Your task to perform on an android device: turn vacation reply on in the gmail app Image 0: 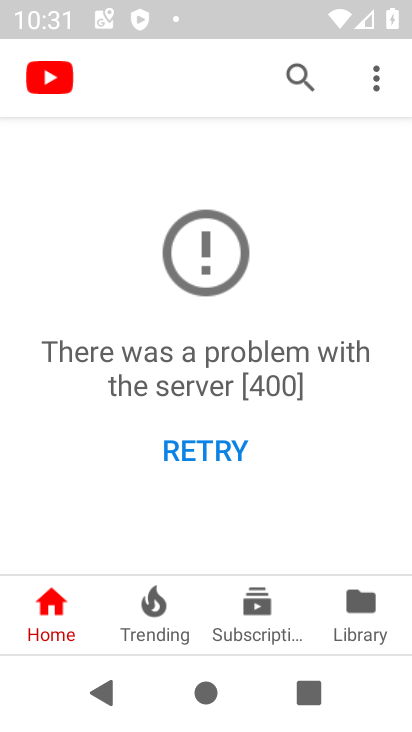
Step 0: press home button
Your task to perform on an android device: turn vacation reply on in the gmail app Image 1: 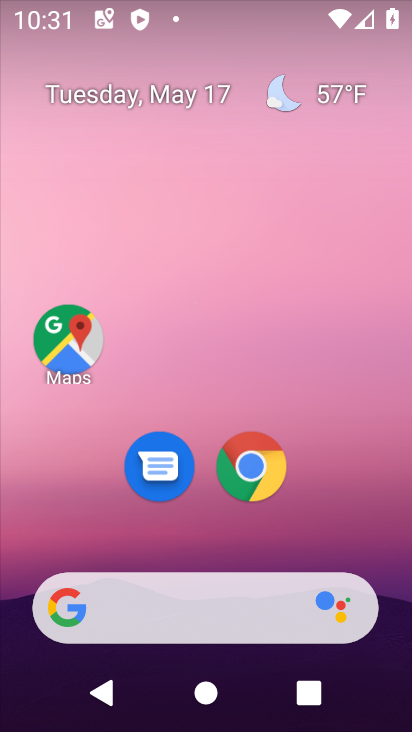
Step 1: drag from (82, 562) to (175, 138)
Your task to perform on an android device: turn vacation reply on in the gmail app Image 2: 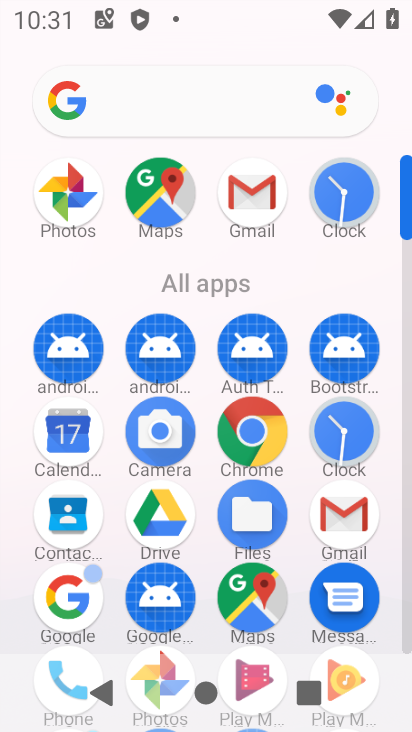
Step 2: click (351, 532)
Your task to perform on an android device: turn vacation reply on in the gmail app Image 3: 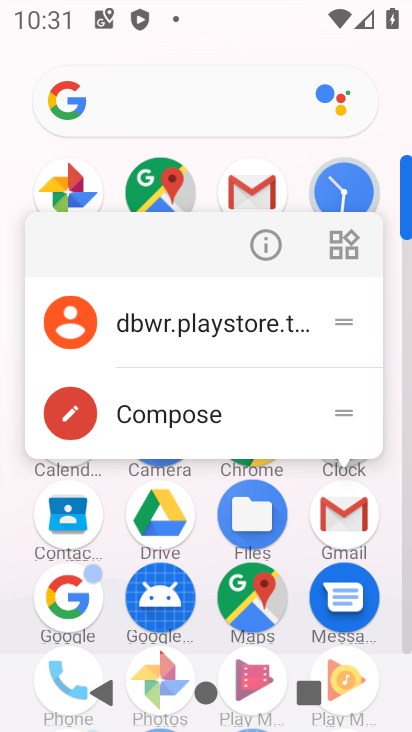
Step 3: click (339, 521)
Your task to perform on an android device: turn vacation reply on in the gmail app Image 4: 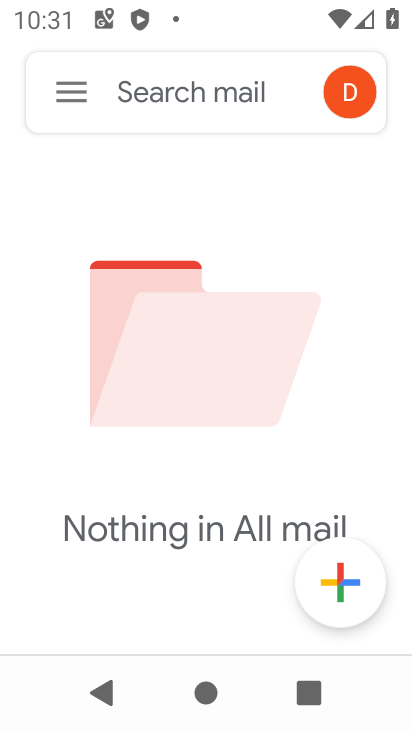
Step 4: click (71, 100)
Your task to perform on an android device: turn vacation reply on in the gmail app Image 5: 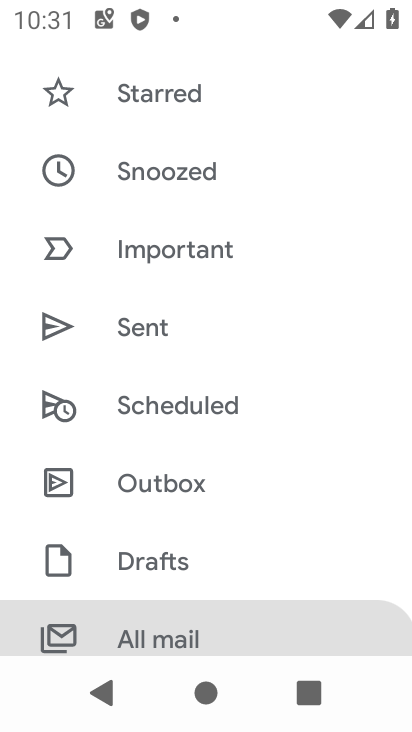
Step 5: drag from (157, 585) to (259, 142)
Your task to perform on an android device: turn vacation reply on in the gmail app Image 6: 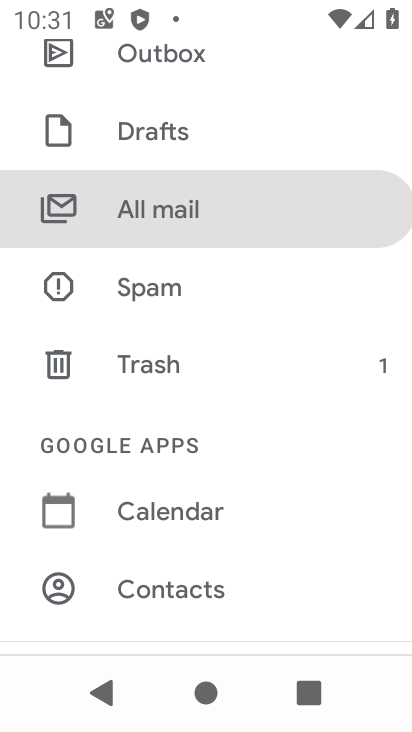
Step 6: drag from (216, 552) to (299, 176)
Your task to perform on an android device: turn vacation reply on in the gmail app Image 7: 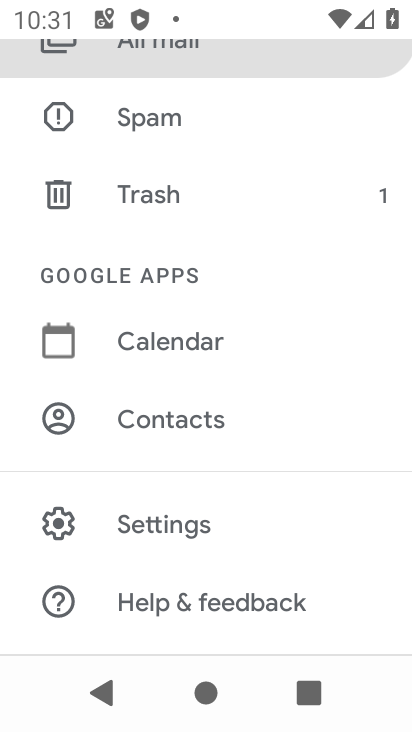
Step 7: click (175, 541)
Your task to perform on an android device: turn vacation reply on in the gmail app Image 8: 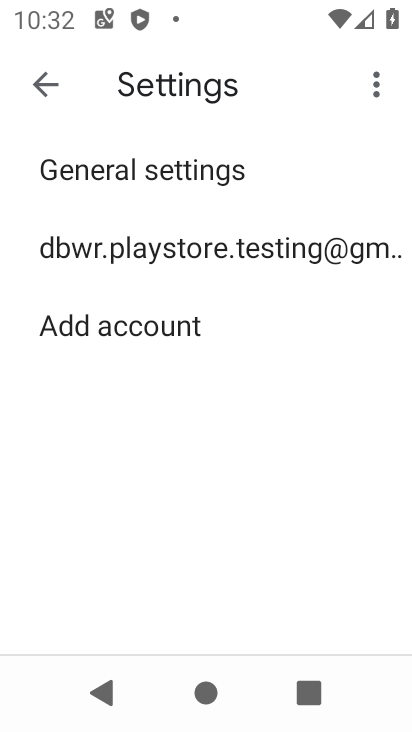
Step 8: click (310, 252)
Your task to perform on an android device: turn vacation reply on in the gmail app Image 9: 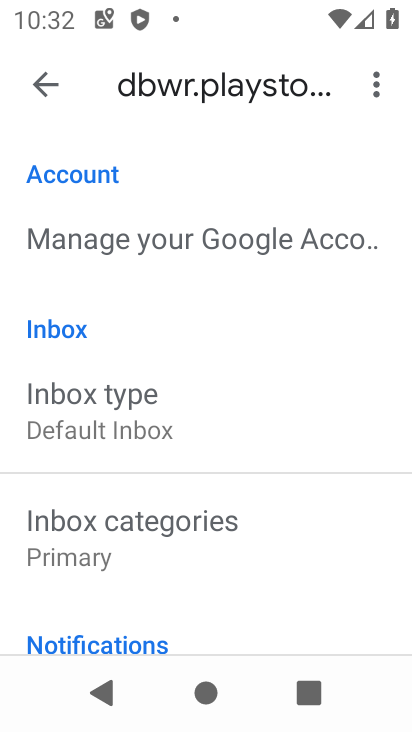
Step 9: drag from (190, 563) to (305, 55)
Your task to perform on an android device: turn vacation reply on in the gmail app Image 10: 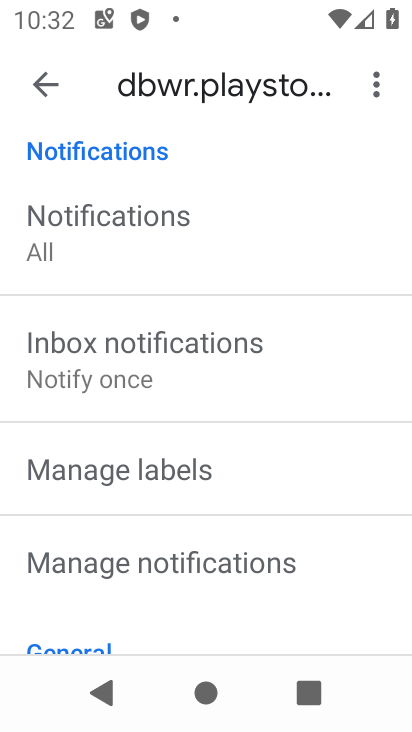
Step 10: drag from (237, 536) to (357, 4)
Your task to perform on an android device: turn vacation reply on in the gmail app Image 11: 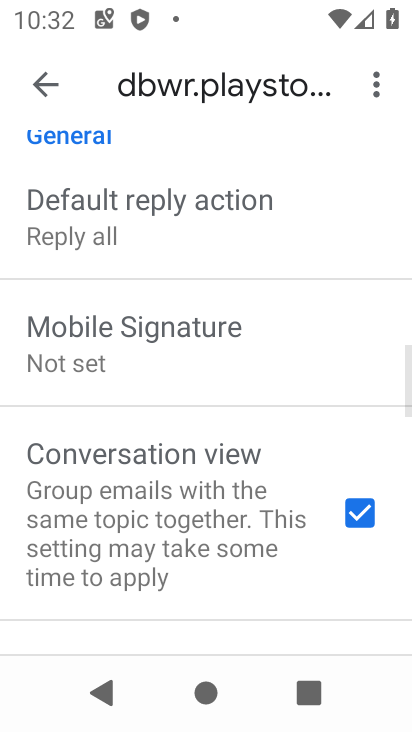
Step 11: drag from (271, 511) to (375, 81)
Your task to perform on an android device: turn vacation reply on in the gmail app Image 12: 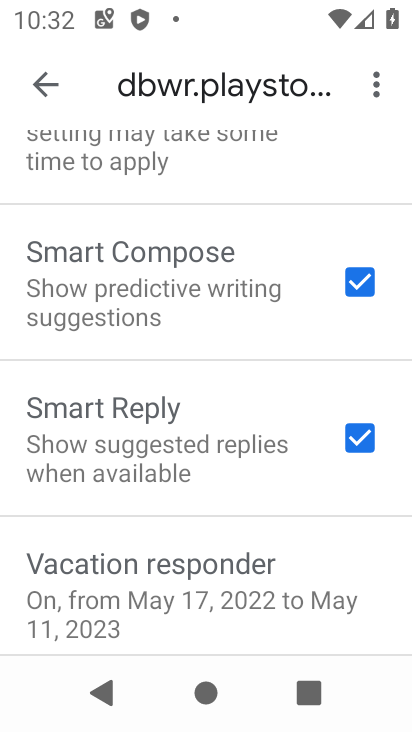
Step 12: drag from (219, 595) to (290, 361)
Your task to perform on an android device: turn vacation reply on in the gmail app Image 13: 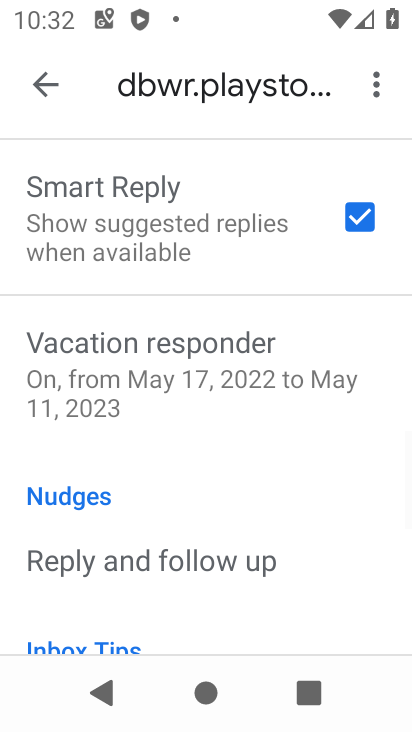
Step 13: click (262, 425)
Your task to perform on an android device: turn vacation reply on in the gmail app Image 14: 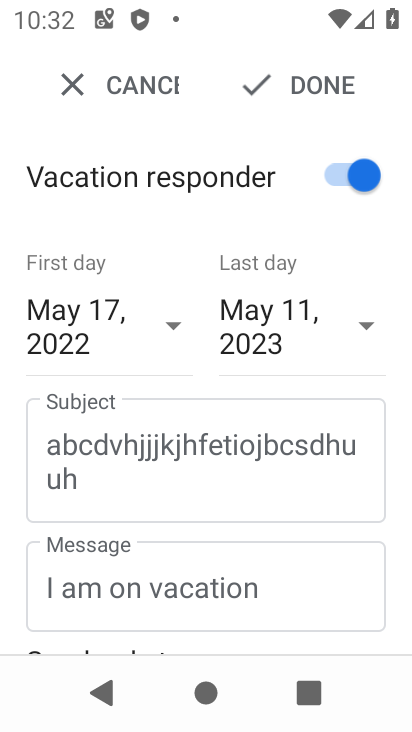
Step 14: task complete